Your task to perform on an android device: Empty the shopping cart on walmart. Search for lenovo thinkpad on walmart, select the first entry, and add it to the cart. Image 0: 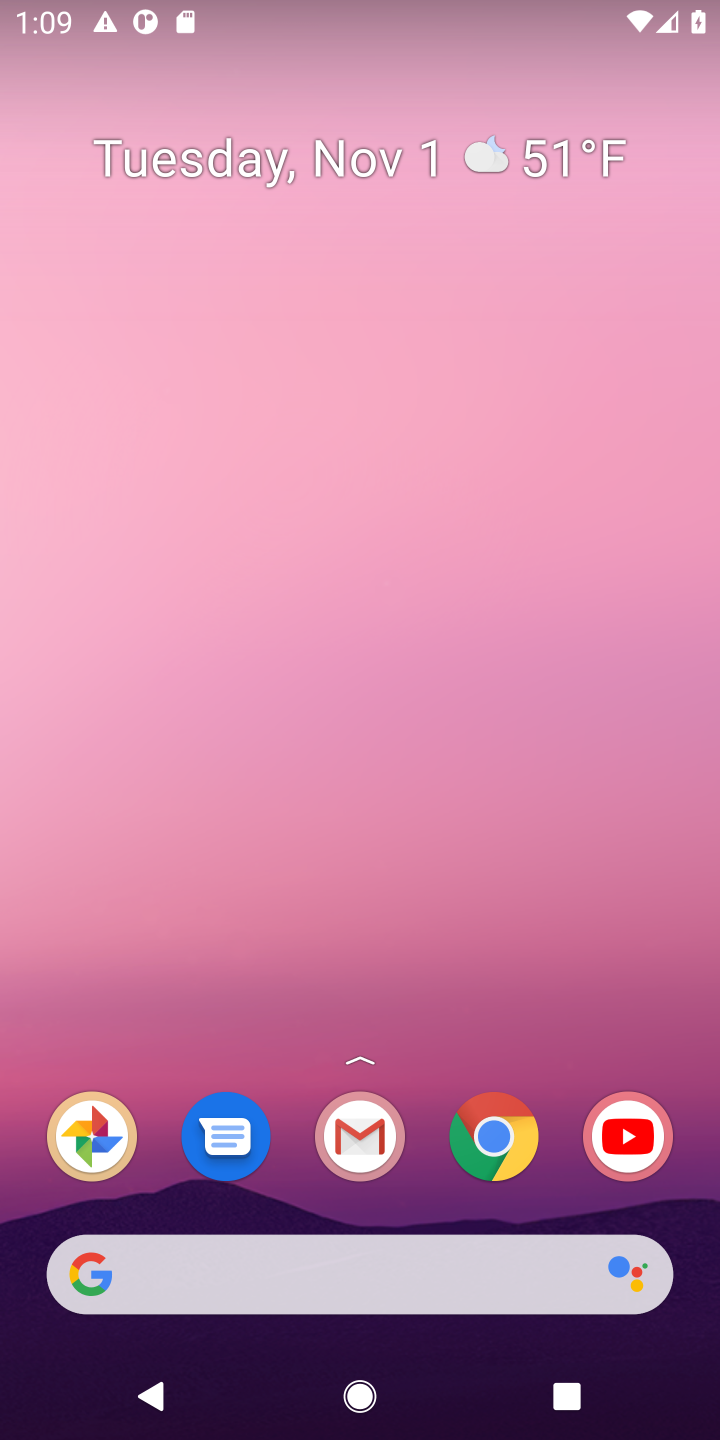
Step 0: press home button
Your task to perform on an android device: Empty the shopping cart on walmart. Search for lenovo thinkpad on walmart, select the first entry, and add it to the cart. Image 1: 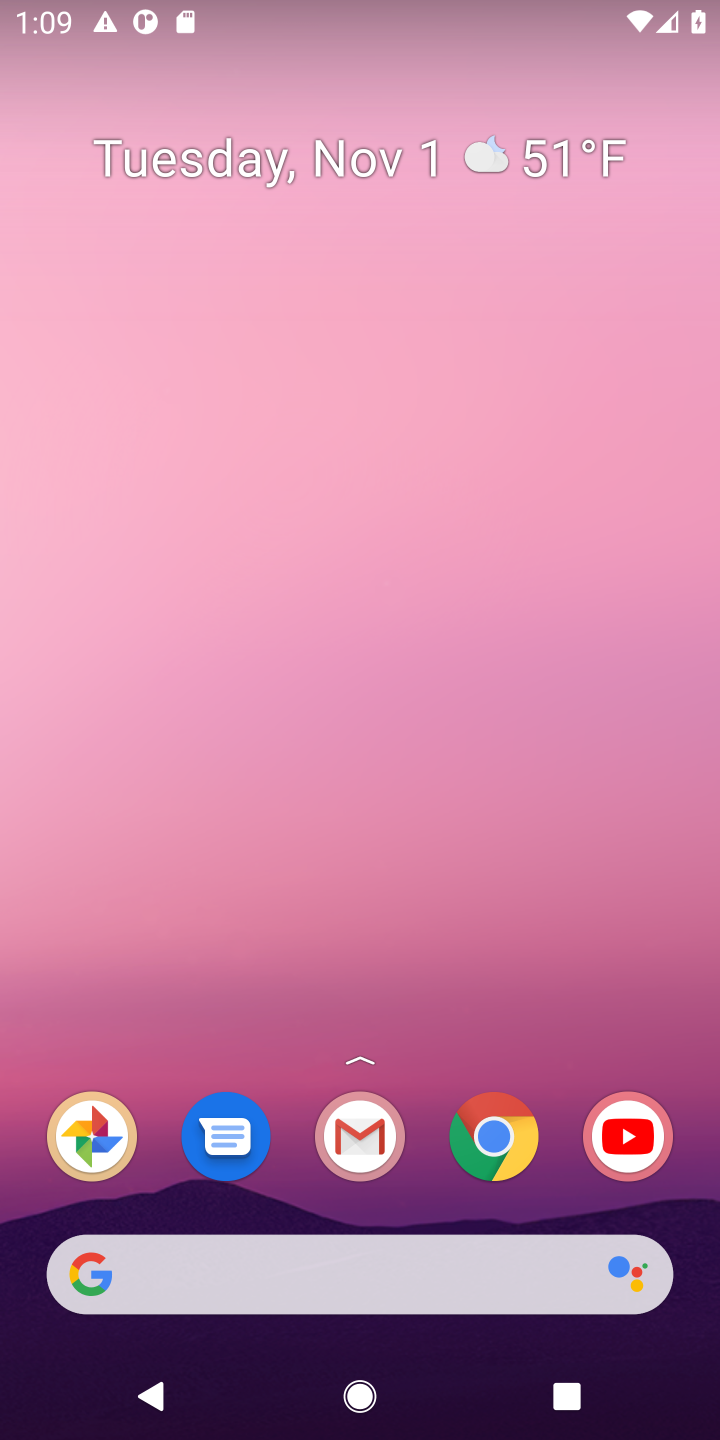
Step 1: click (146, 1276)
Your task to perform on an android device: Empty the shopping cart on walmart. Search for lenovo thinkpad on walmart, select the first entry, and add it to the cart. Image 2: 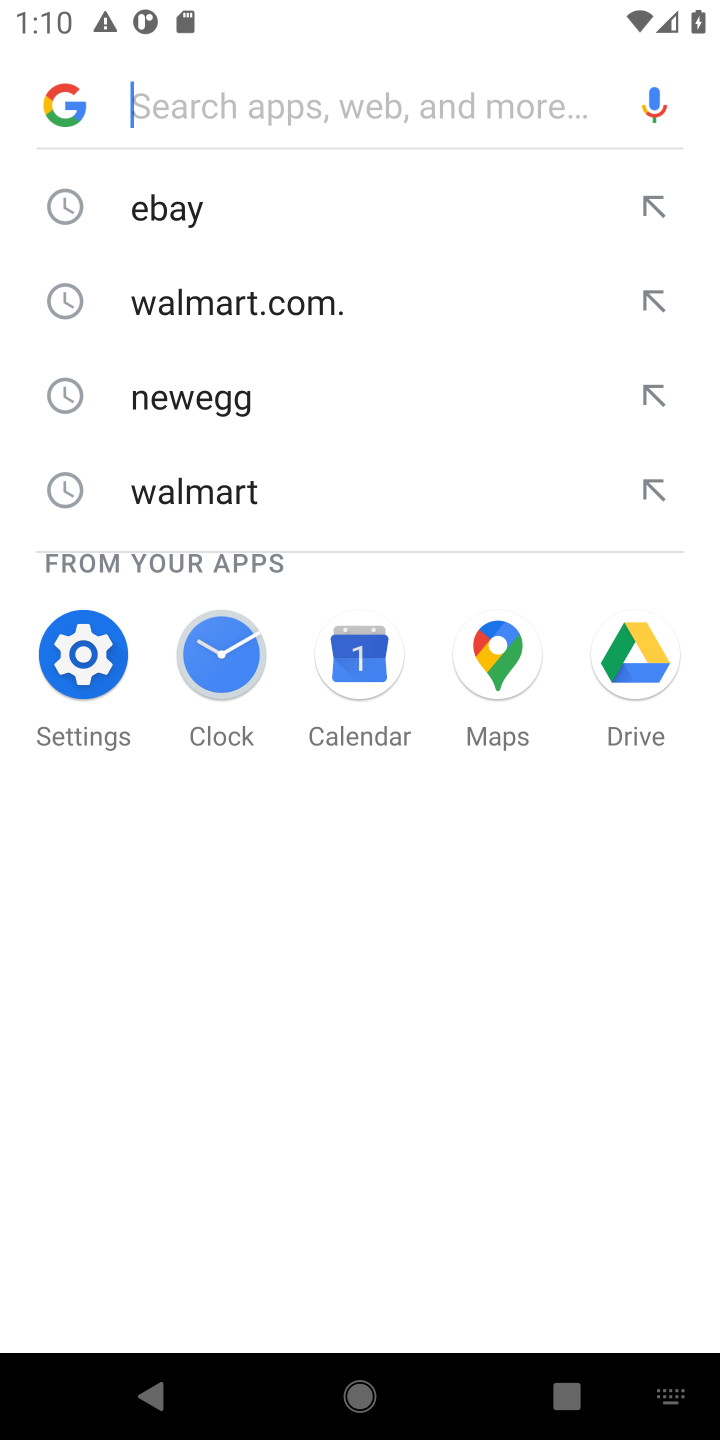
Step 2: click (197, 304)
Your task to perform on an android device: Empty the shopping cart on walmart. Search for lenovo thinkpad on walmart, select the first entry, and add it to the cart. Image 3: 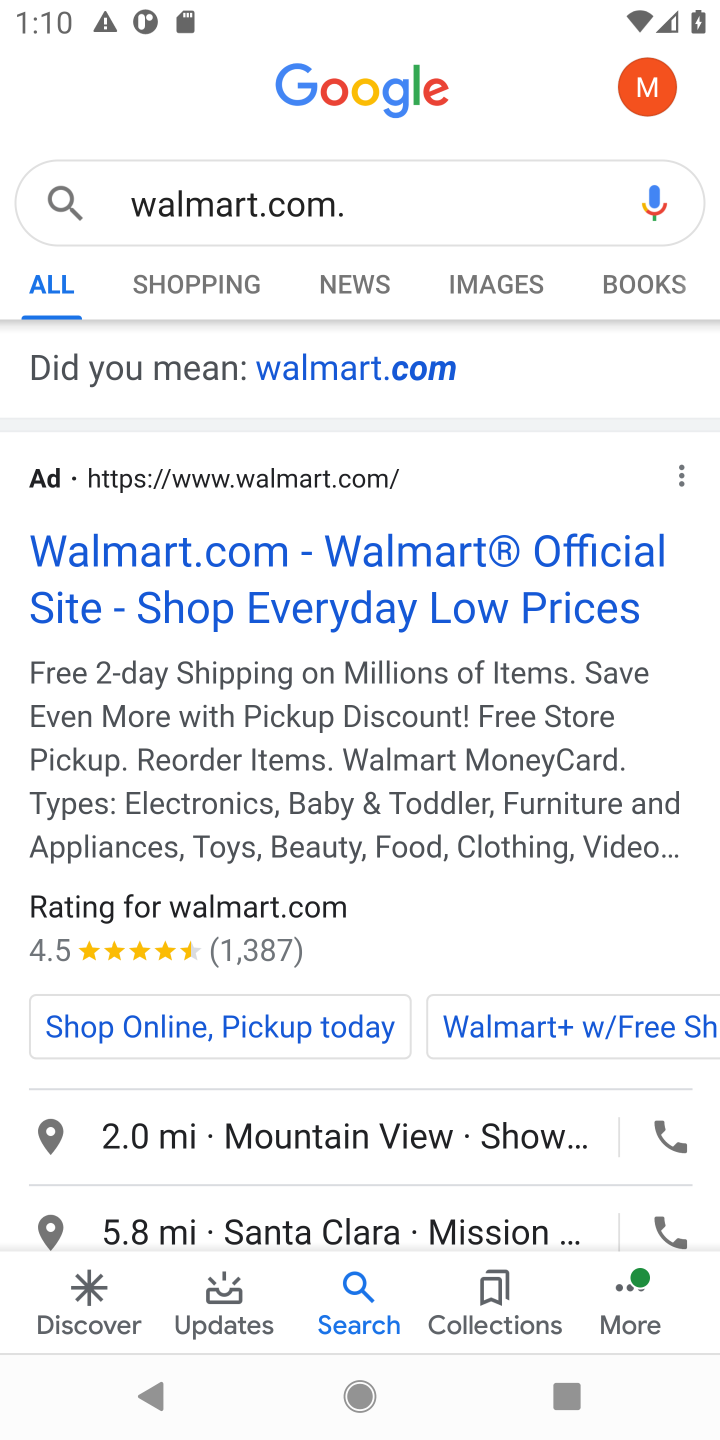
Step 3: click (218, 565)
Your task to perform on an android device: Empty the shopping cart on walmart. Search for lenovo thinkpad on walmart, select the first entry, and add it to the cart. Image 4: 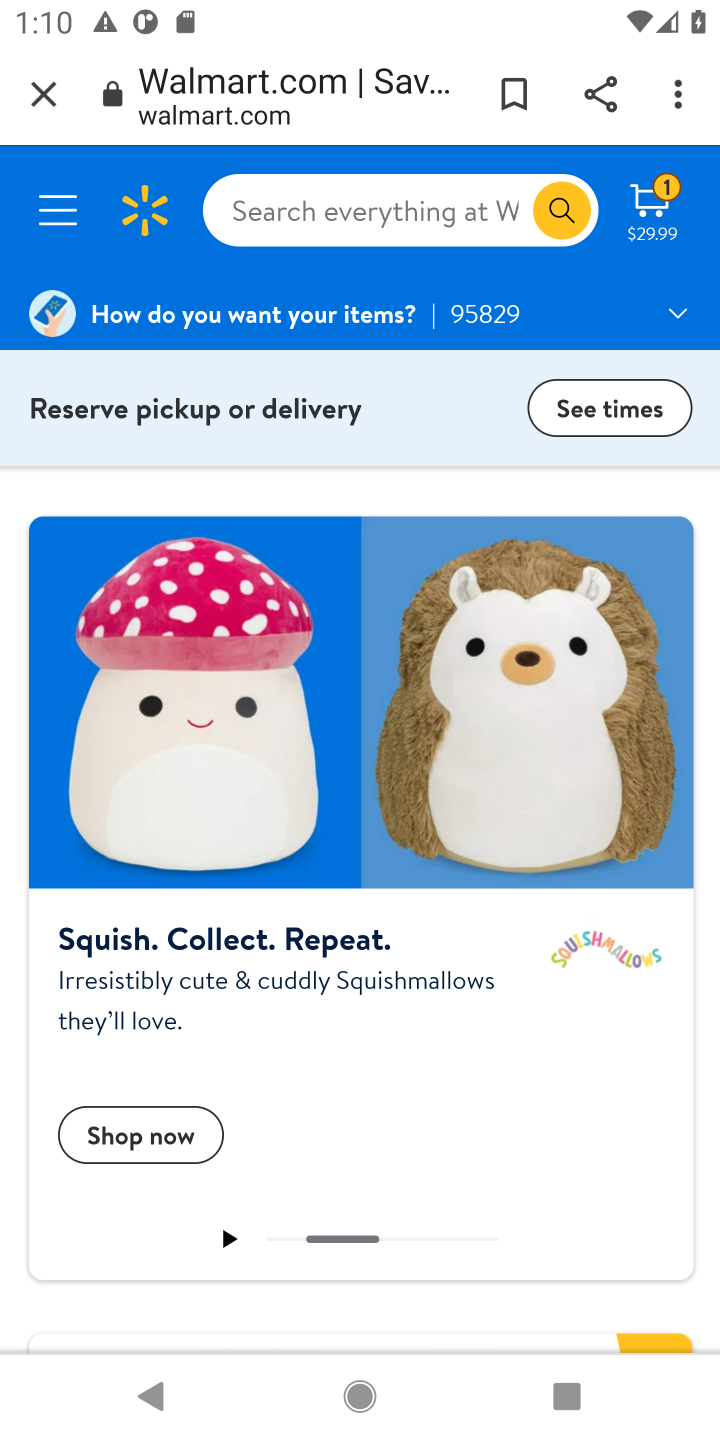
Step 4: click (268, 221)
Your task to perform on an android device: Empty the shopping cart on walmart. Search for lenovo thinkpad on walmart, select the first entry, and add it to the cart. Image 5: 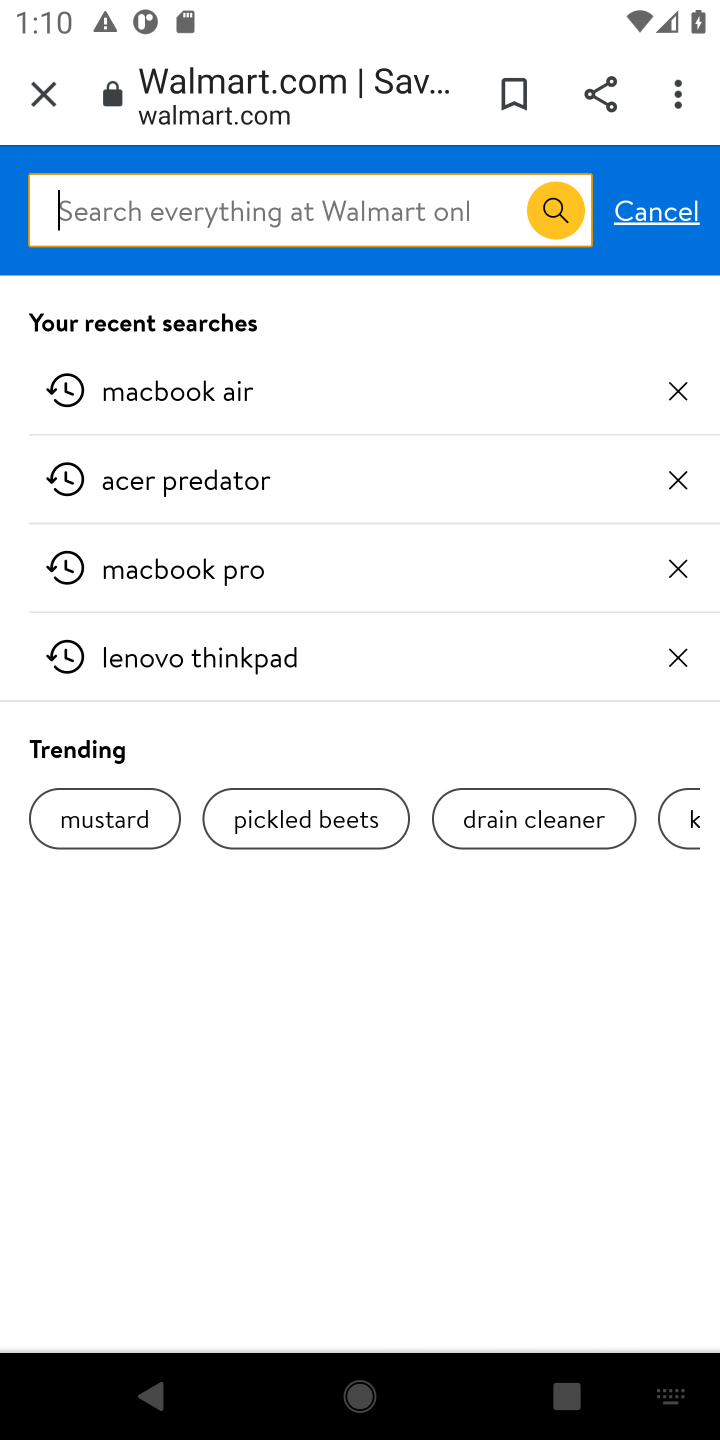
Step 5: type "lenovo thinkpad"
Your task to perform on an android device: Empty the shopping cart on walmart. Search for lenovo thinkpad on walmart, select the first entry, and add it to the cart. Image 6: 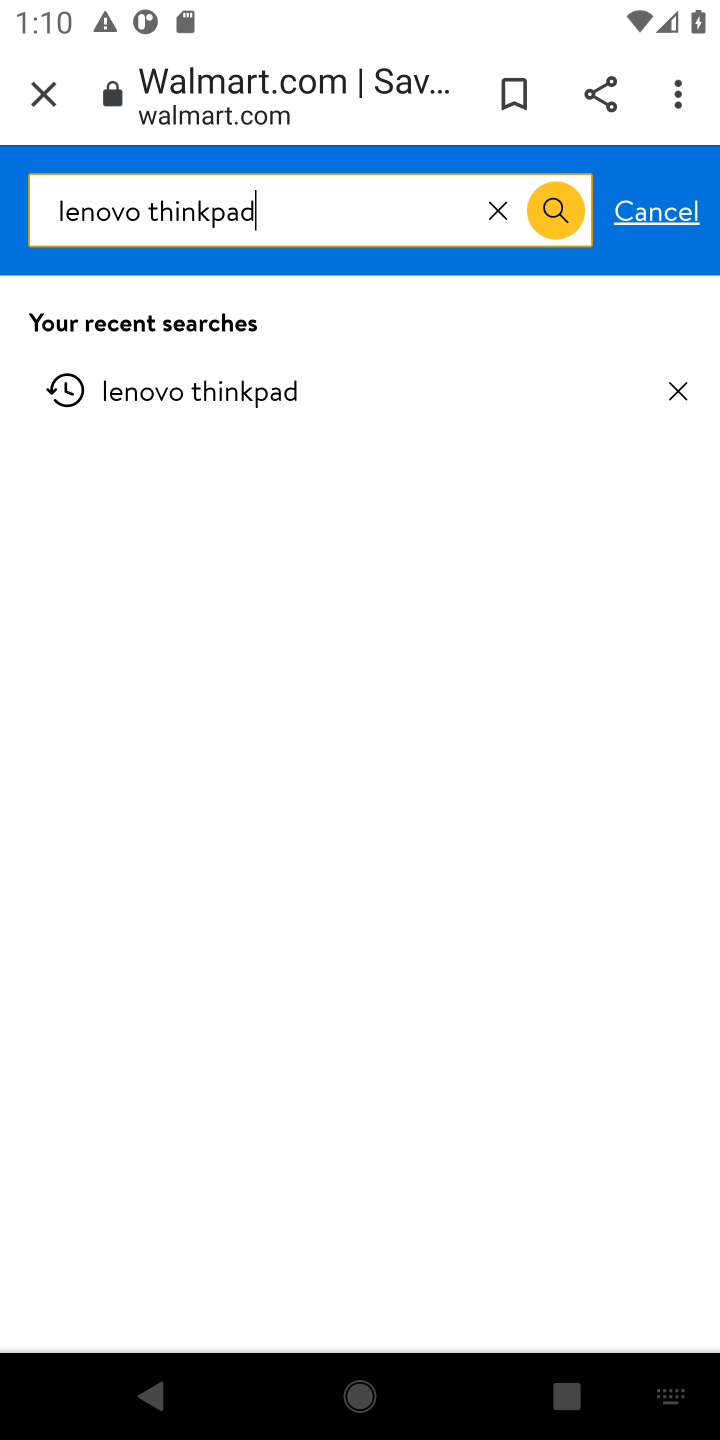
Step 6: press enter
Your task to perform on an android device: Empty the shopping cart on walmart. Search for lenovo thinkpad on walmart, select the first entry, and add it to the cart. Image 7: 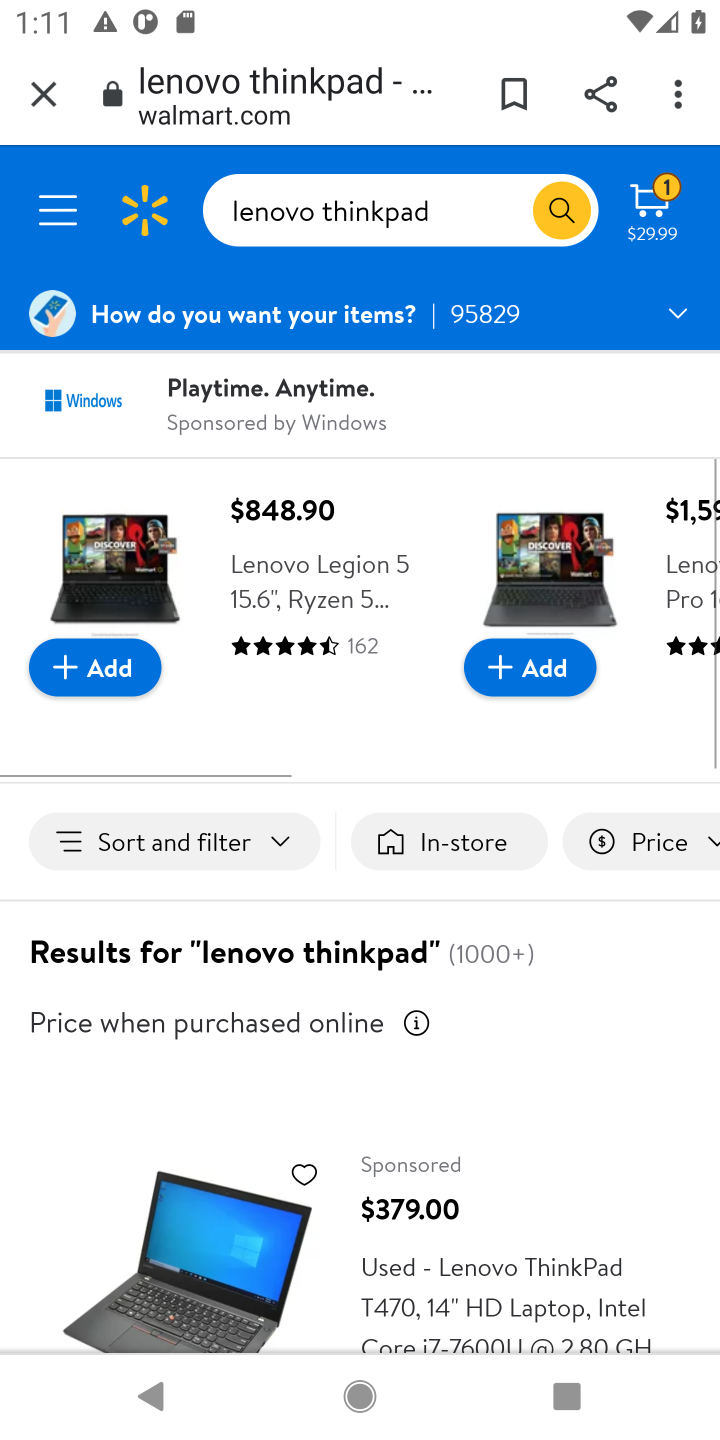
Step 7: drag from (477, 1132) to (495, 773)
Your task to perform on an android device: Empty the shopping cart on walmart. Search for lenovo thinkpad on walmart, select the first entry, and add it to the cart. Image 8: 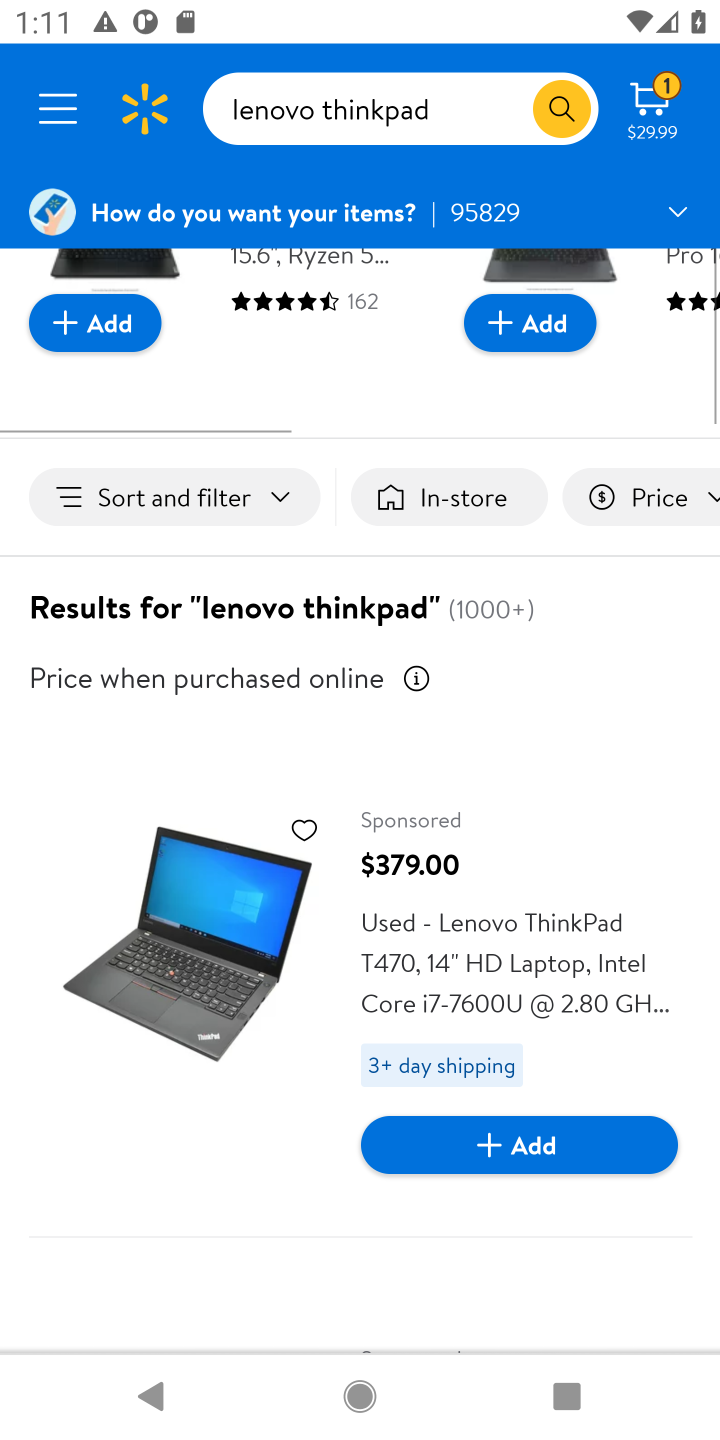
Step 8: click (542, 1143)
Your task to perform on an android device: Empty the shopping cart on walmart. Search for lenovo thinkpad on walmart, select the first entry, and add it to the cart. Image 9: 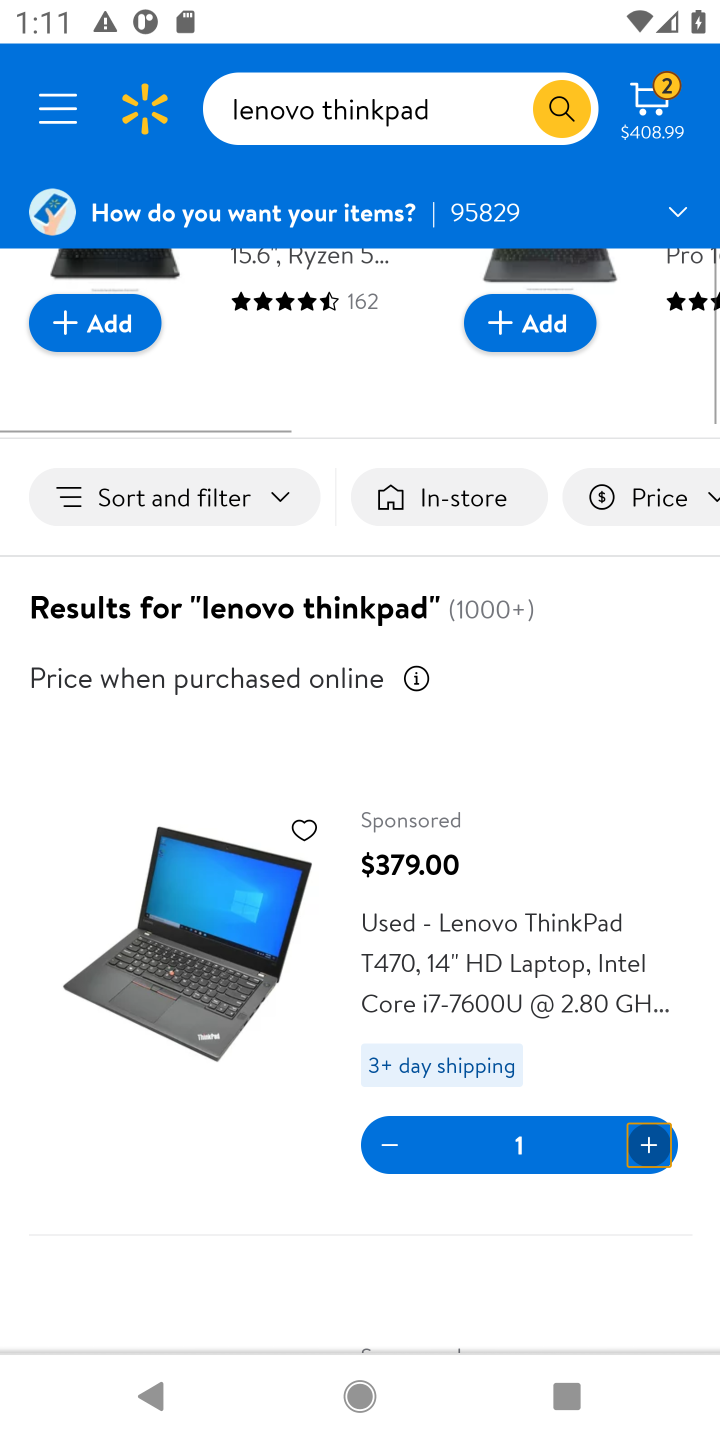
Step 9: task complete